Your task to perform on an android device: turn on showing notifications on the lock screen Image 0: 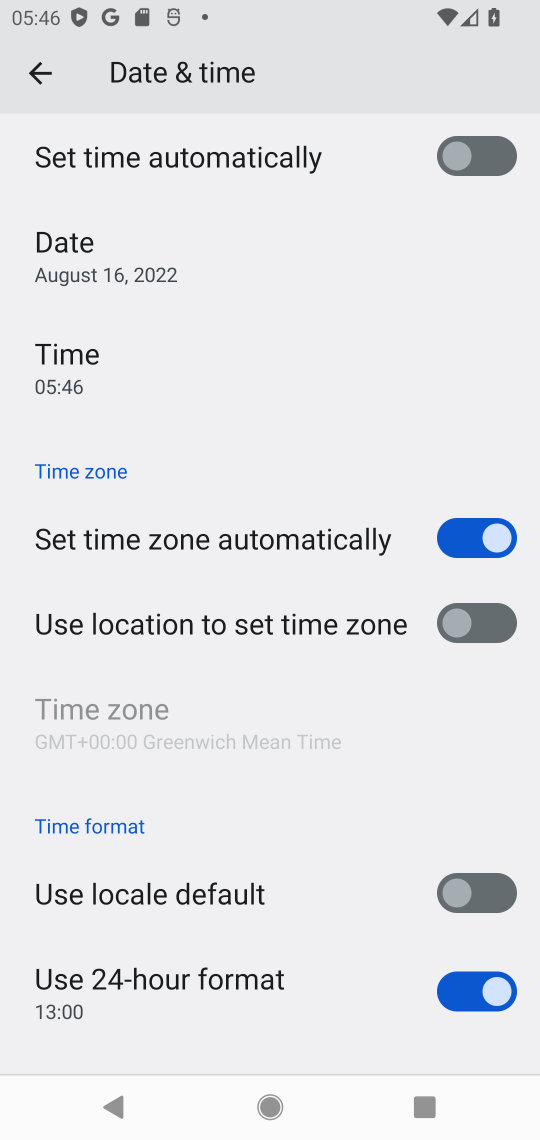
Step 0: press home button
Your task to perform on an android device: turn on showing notifications on the lock screen Image 1: 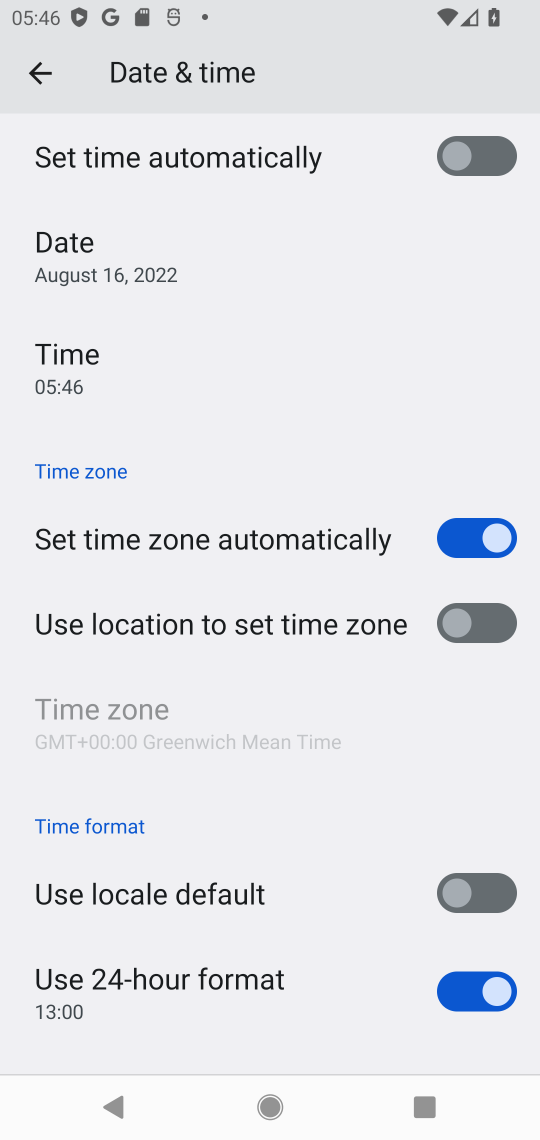
Step 1: press home button
Your task to perform on an android device: turn on showing notifications on the lock screen Image 2: 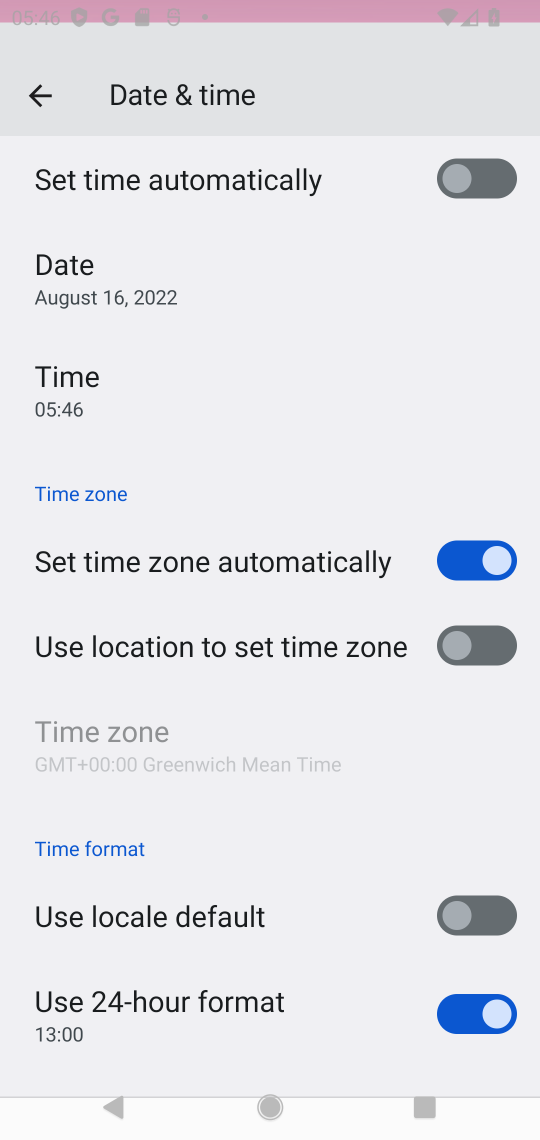
Step 2: press home button
Your task to perform on an android device: turn on showing notifications on the lock screen Image 3: 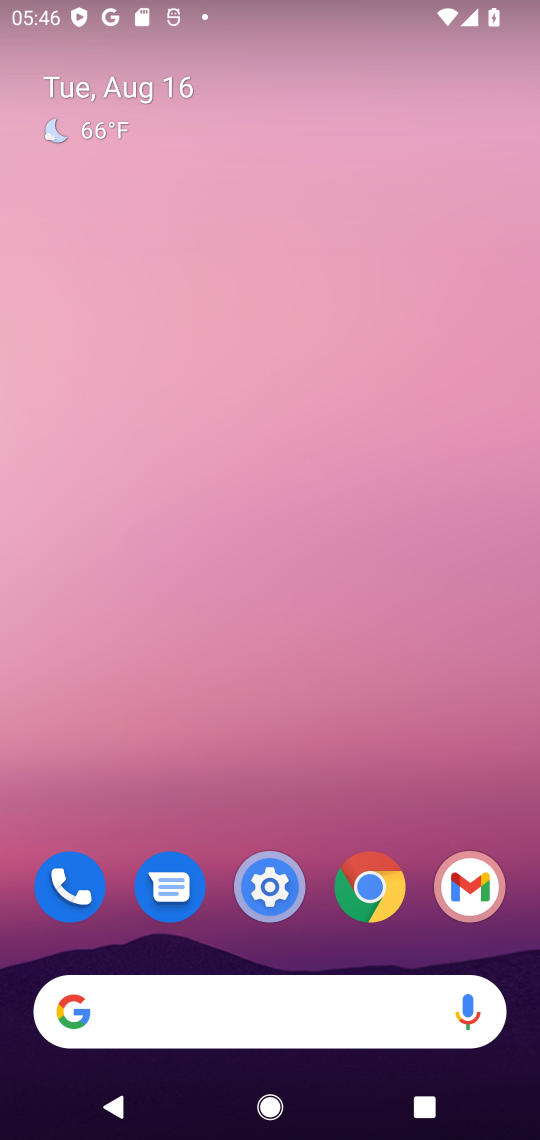
Step 3: drag from (305, 564) to (330, 23)
Your task to perform on an android device: turn on showing notifications on the lock screen Image 4: 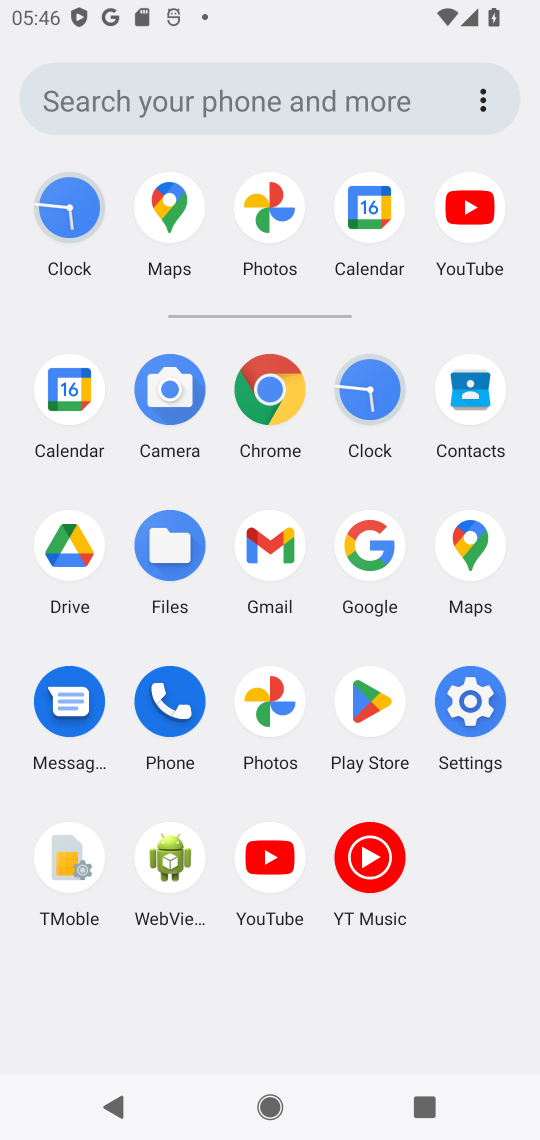
Step 4: click (481, 708)
Your task to perform on an android device: turn on showing notifications on the lock screen Image 5: 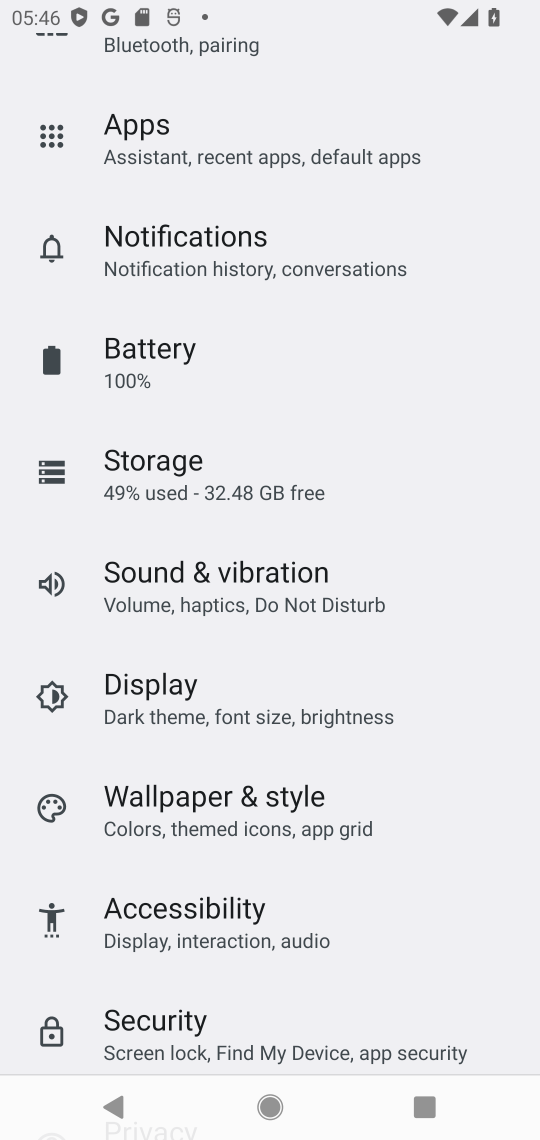
Step 5: click (220, 249)
Your task to perform on an android device: turn on showing notifications on the lock screen Image 6: 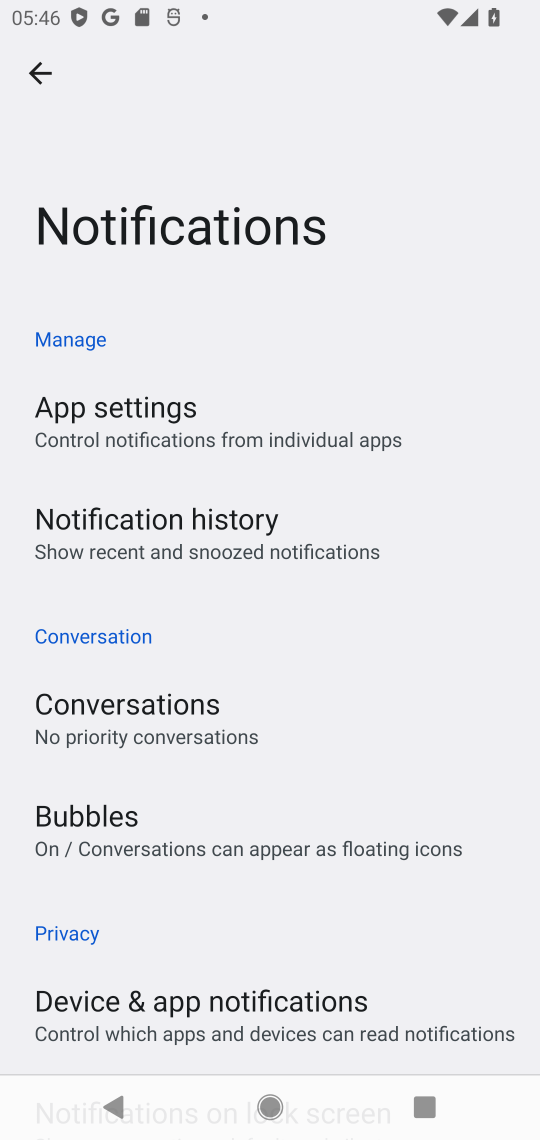
Step 6: drag from (326, 921) to (418, 525)
Your task to perform on an android device: turn on showing notifications on the lock screen Image 7: 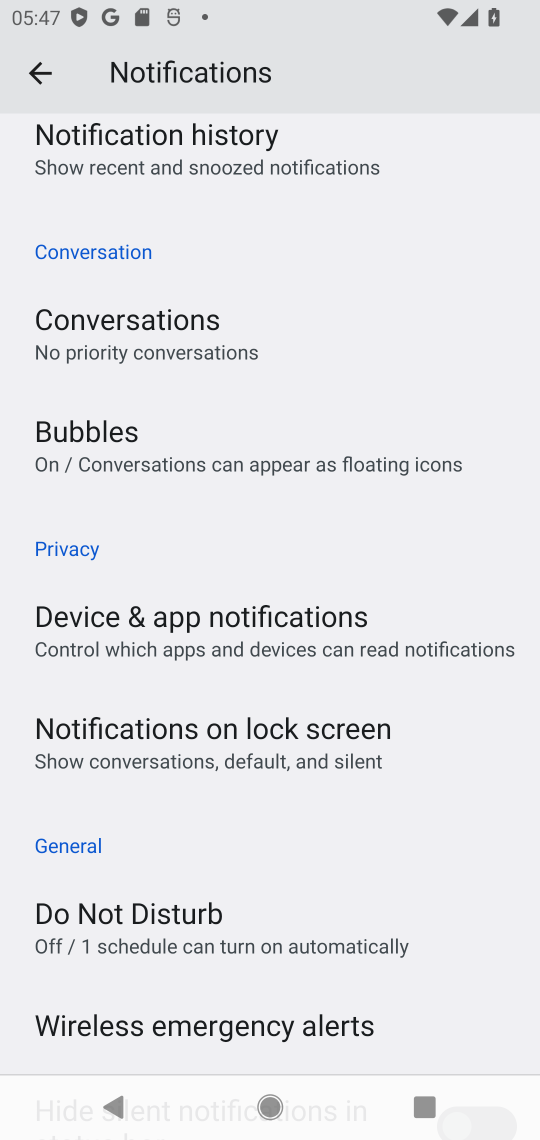
Step 7: click (227, 747)
Your task to perform on an android device: turn on showing notifications on the lock screen Image 8: 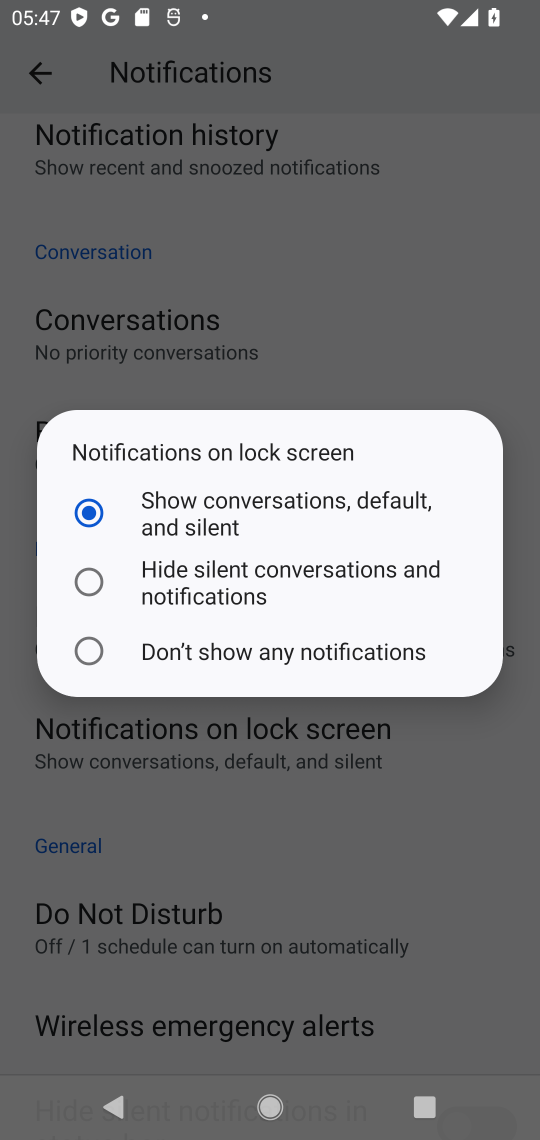
Step 8: task complete